Your task to perform on an android device: allow notifications from all sites in the chrome app Image 0: 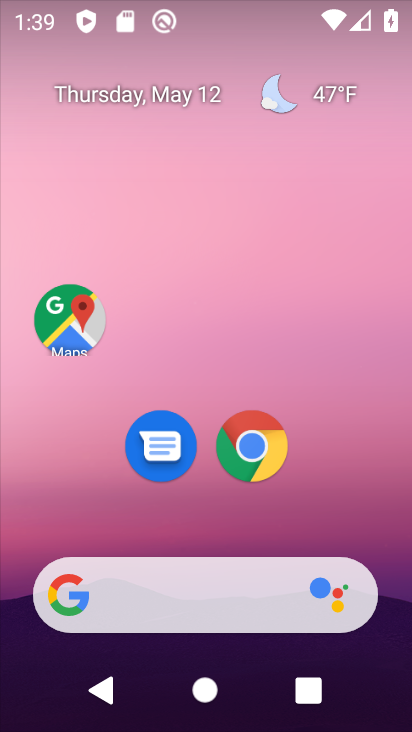
Step 0: click (257, 451)
Your task to perform on an android device: allow notifications from all sites in the chrome app Image 1: 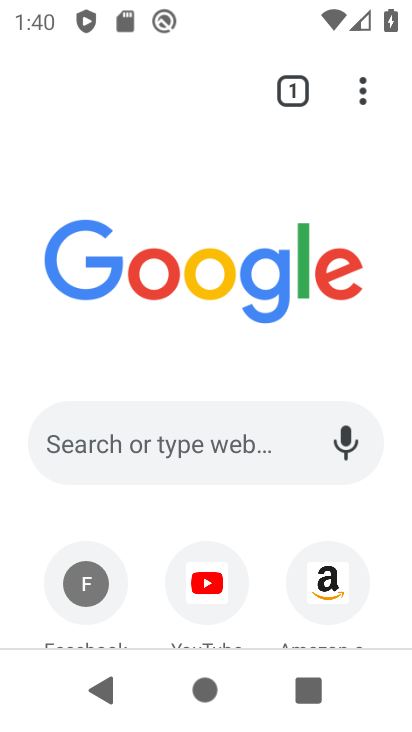
Step 1: click (352, 93)
Your task to perform on an android device: allow notifications from all sites in the chrome app Image 2: 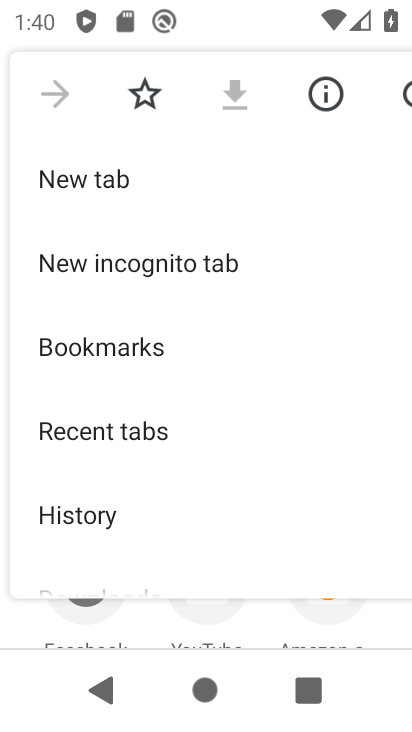
Step 2: drag from (221, 484) to (190, 143)
Your task to perform on an android device: allow notifications from all sites in the chrome app Image 3: 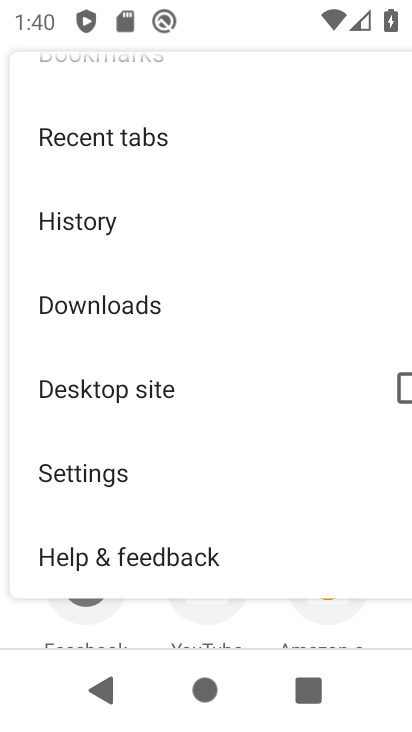
Step 3: click (129, 475)
Your task to perform on an android device: allow notifications from all sites in the chrome app Image 4: 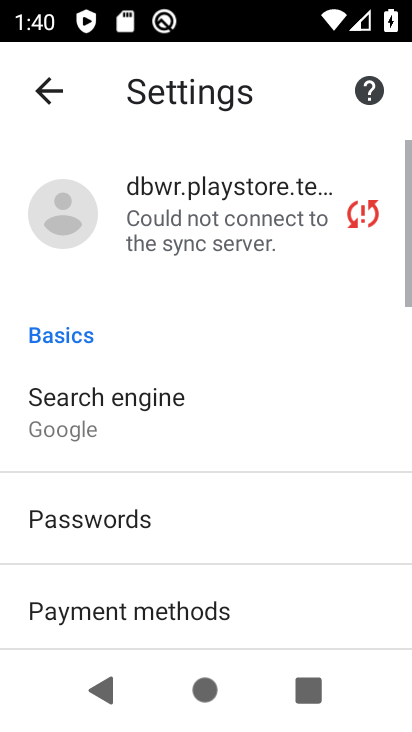
Step 4: drag from (158, 577) to (141, 149)
Your task to perform on an android device: allow notifications from all sites in the chrome app Image 5: 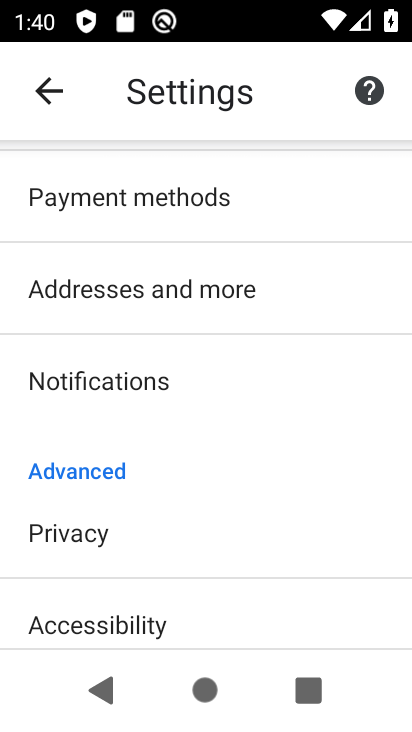
Step 5: drag from (117, 616) to (117, 198)
Your task to perform on an android device: allow notifications from all sites in the chrome app Image 6: 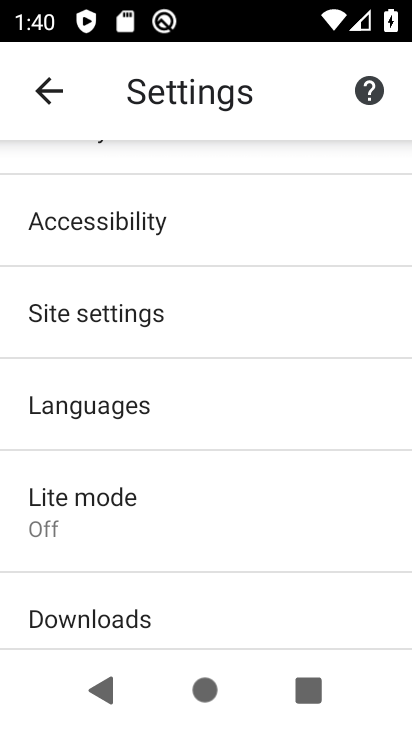
Step 6: click (80, 335)
Your task to perform on an android device: allow notifications from all sites in the chrome app Image 7: 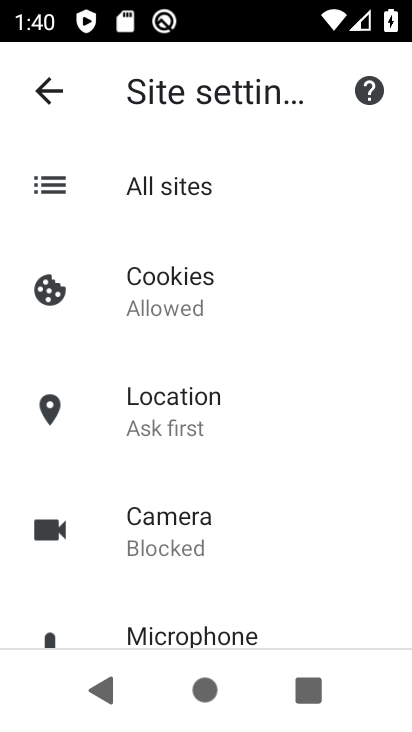
Step 7: drag from (200, 620) to (189, 125)
Your task to perform on an android device: allow notifications from all sites in the chrome app Image 8: 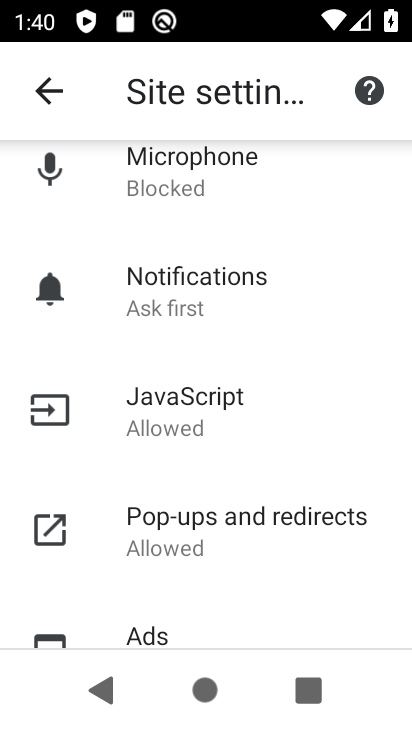
Step 8: click (211, 309)
Your task to perform on an android device: allow notifications from all sites in the chrome app Image 9: 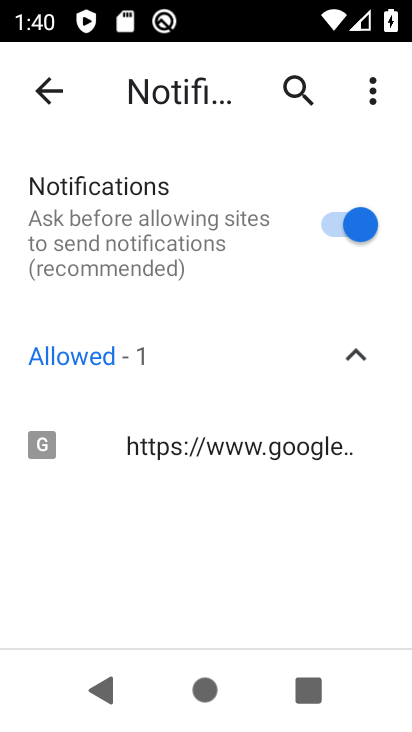
Step 9: task complete